Your task to perform on an android device: turn off picture-in-picture Image 0: 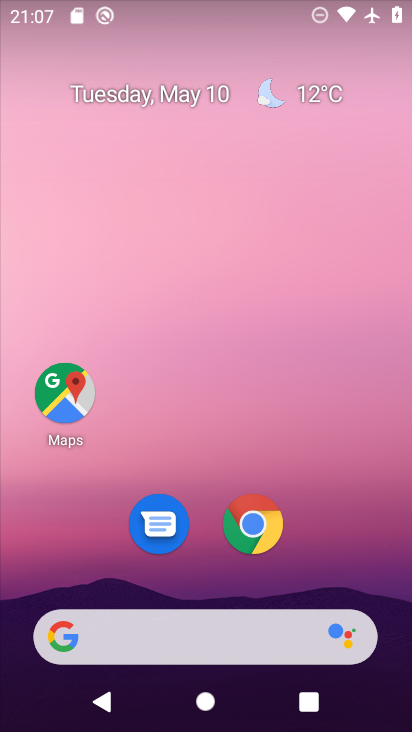
Step 0: click (261, 526)
Your task to perform on an android device: turn off picture-in-picture Image 1: 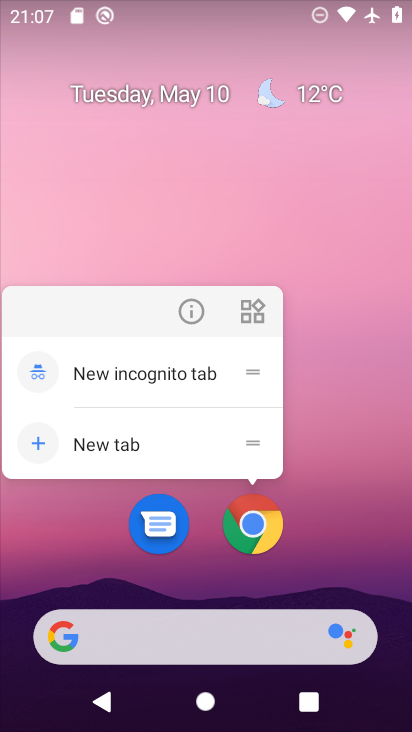
Step 1: click (194, 310)
Your task to perform on an android device: turn off picture-in-picture Image 2: 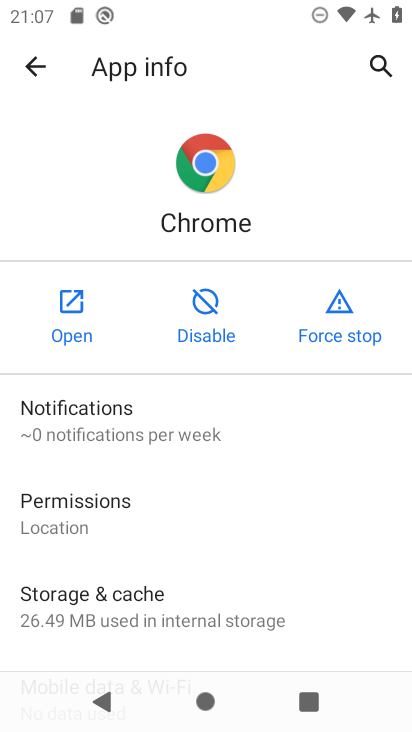
Step 2: drag from (234, 517) to (225, 120)
Your task to perform on an android device: turn off picture-in-picture Image 3: 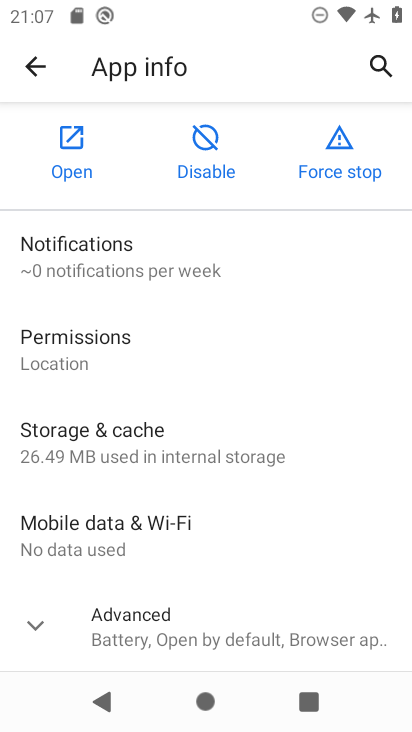
Step 3: click (34, 620)
Your task to perform on an android device: turn off picture-in-picture Image 4: 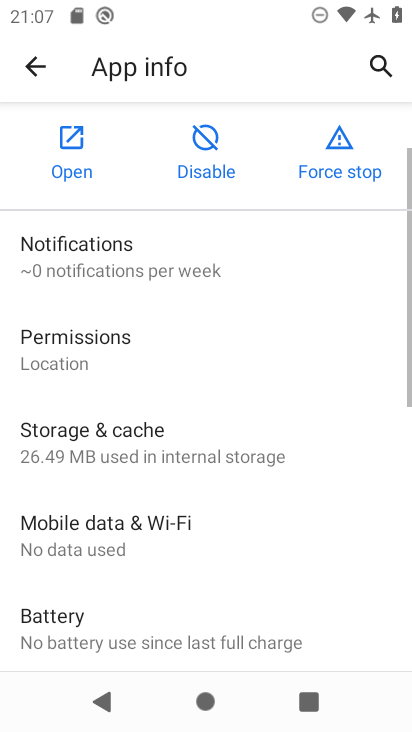
Step 4: drag from (219, 519) to (203, 167)
Your task to perform on an android device: turn off picture-in-picture Image 5: 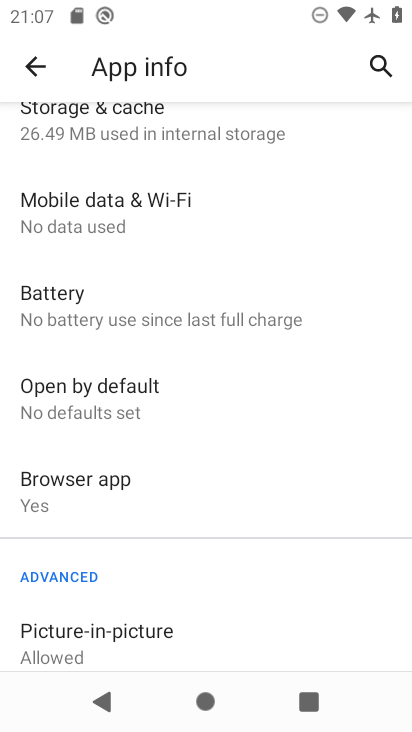
Step 5: click (162, 635)
Your task to perform on an android device: turn off picture-in-picture Image 6: 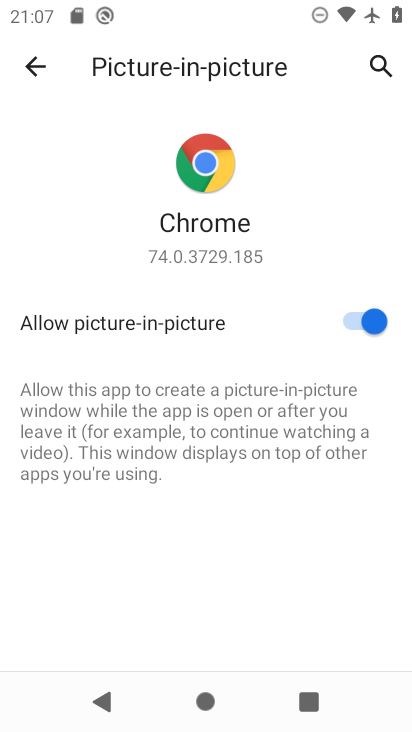
Step 6: click (353, 312)
Your task to perform on an android device: turn off picture-in-picture Image 7: 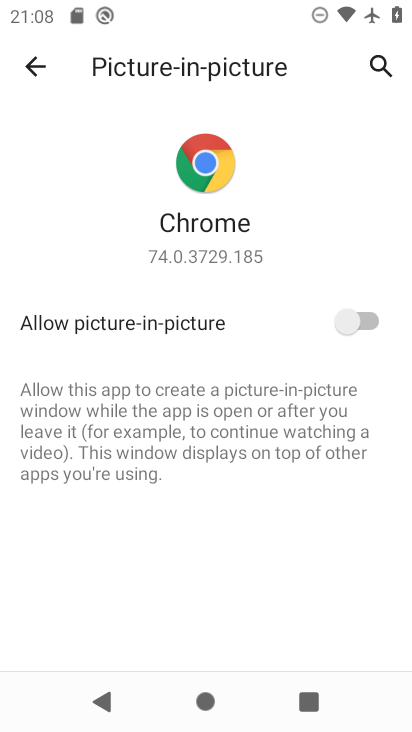
Step 7: task complete